Your task to perform on an android device: Go to Google maps Image 0: 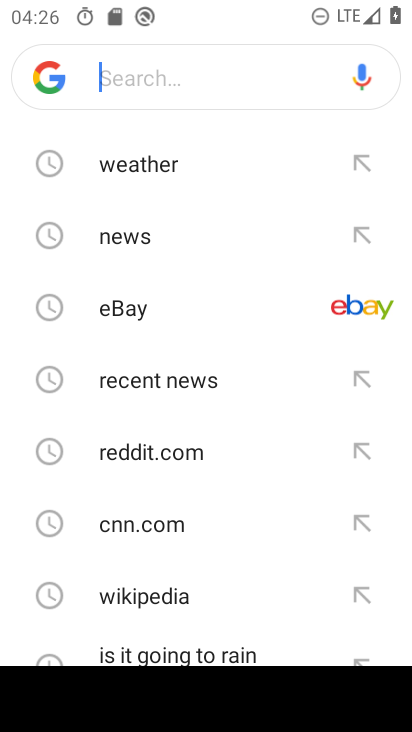
Step 0: task complete